Your task to perform on an android device: change timer sound Image 0: 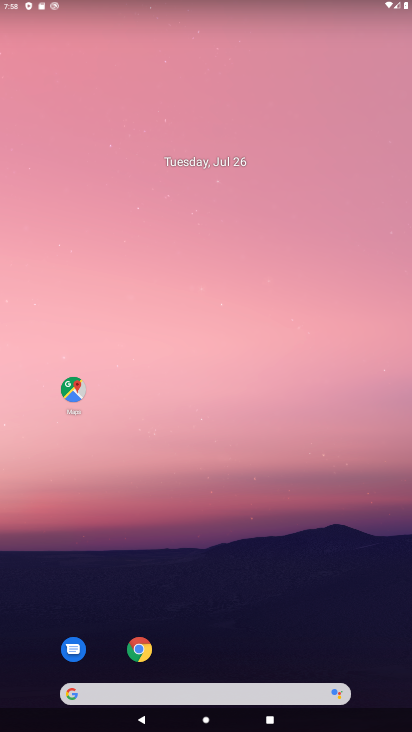
Step 0: drag from (219, 681) to (219, 185)
Your task to perform on an android device: change timer sound Image 1: 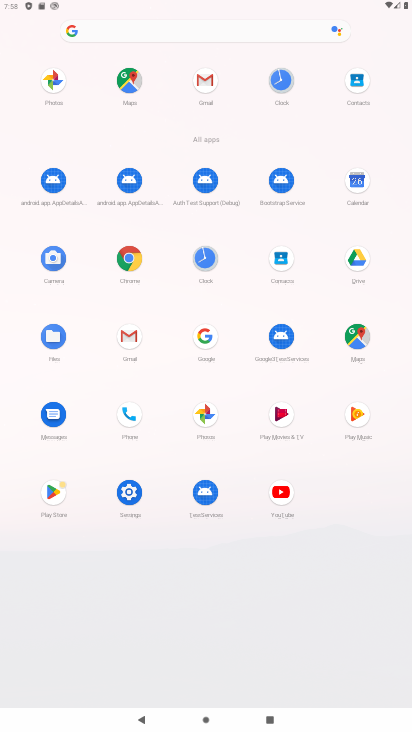
Step 1: click (211, 259)
Your task to perform on an android device: change timer sound Image 2: 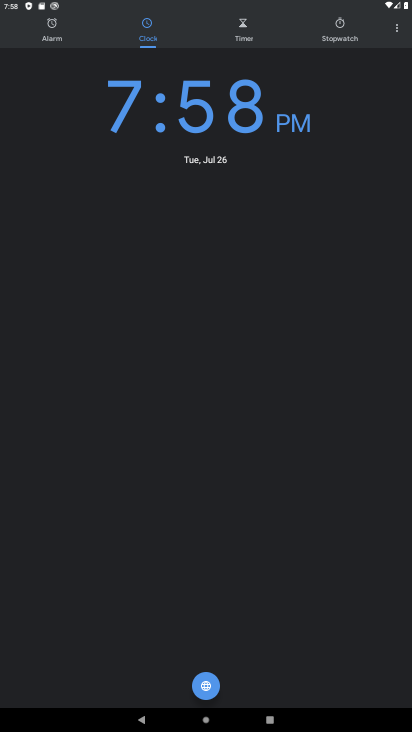
Step 2: click (400, 34)
Your task to perform on an android device: change timer sound Image 3: 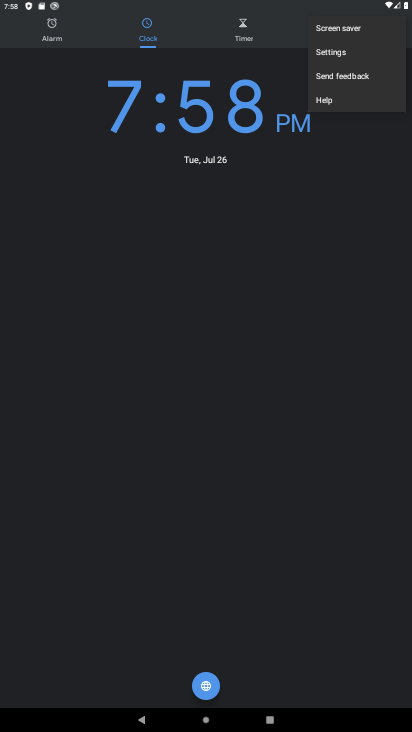
Step 3: click (338, 50)
Your task to perform on an android device: change timer sound Image 4: 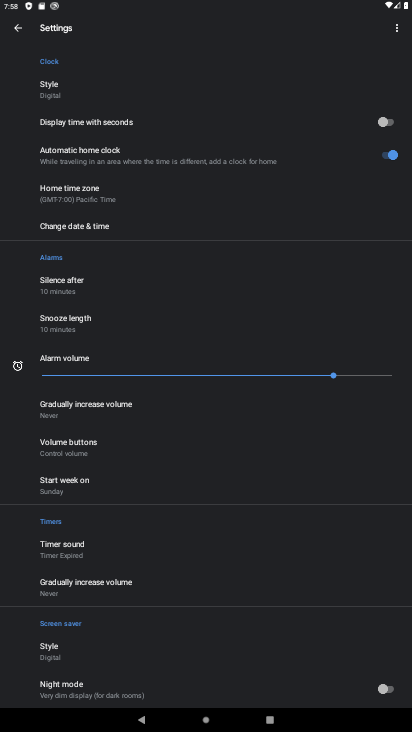
Step 4: click (51, 545)
Your task to perform on an android device: change timer sound Image 5: 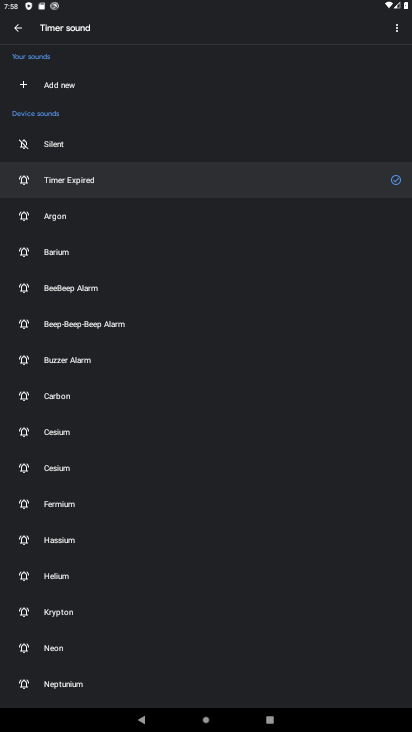
Step 5: click (61, 472)
Your task to perform on an android device: change timer sound Image 6: 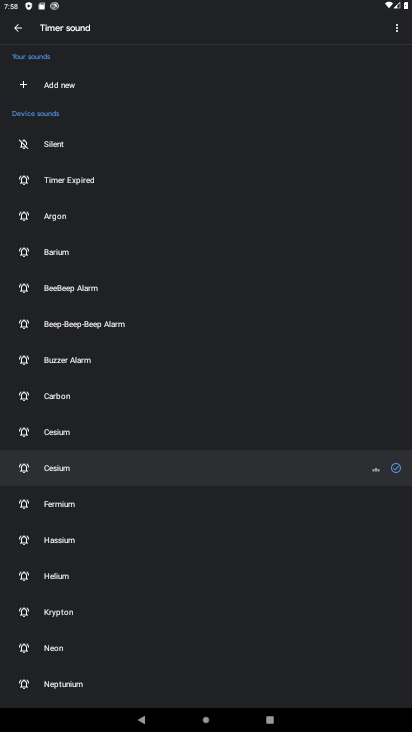
Step 6: task complete